Your task to perform on an android device: Go to settings Image 0: 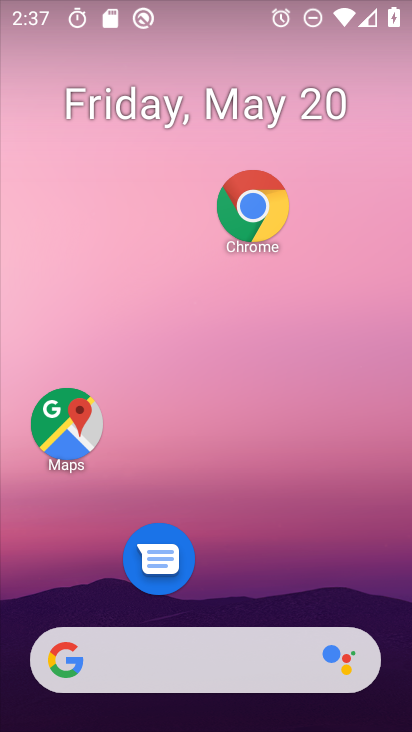
Step 0: drag from (200, 605) to (114, 3)
Your task to perform on an android device: Go to settings Image 1: 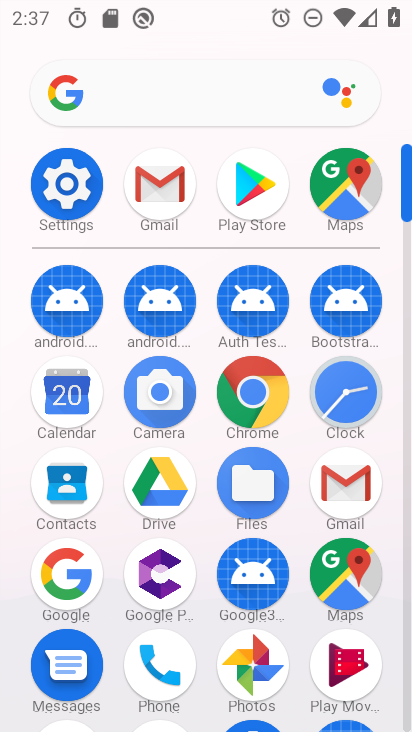
Step 1: click (59, 198)
Your task to perform on an android device: Go to settings Image 2: 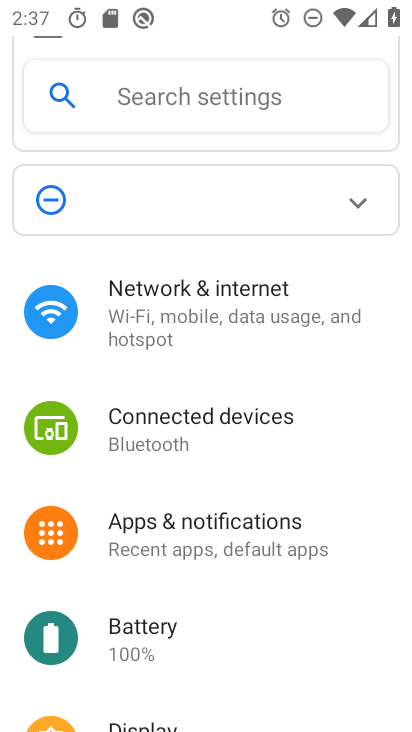
Step 2: task complete